Your task to perform on an android device: refresh tabs in the chrome app Image 0: 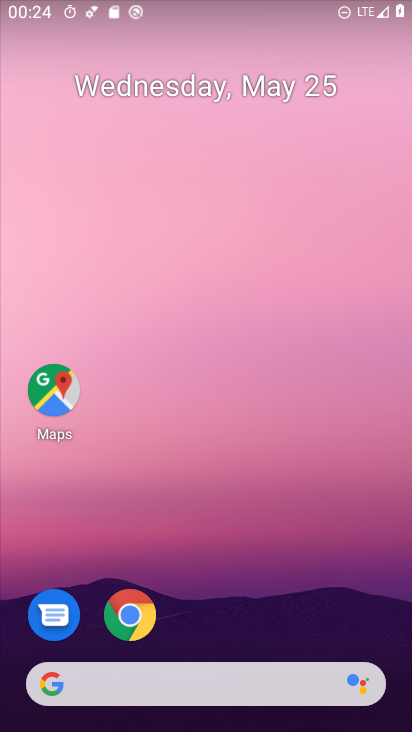
Step 0: press home button
Your task to perform on an android device: refresh tabs in the chrome app Image 1: 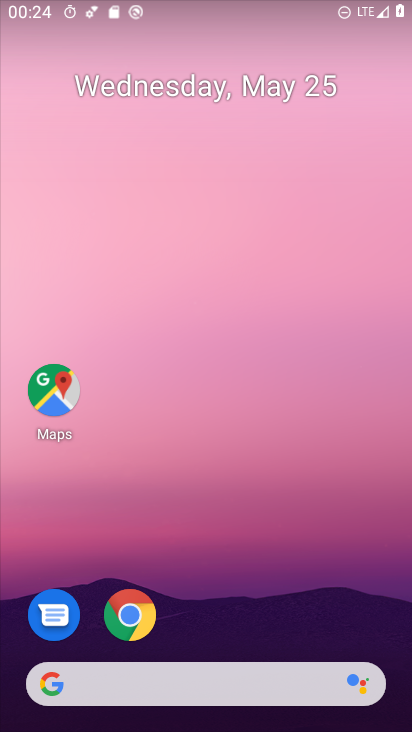
Step 1: drag from (276, 720) to (230, 149)
Your task to perform on an android device: refresh tabs in the chrome app Image 2: 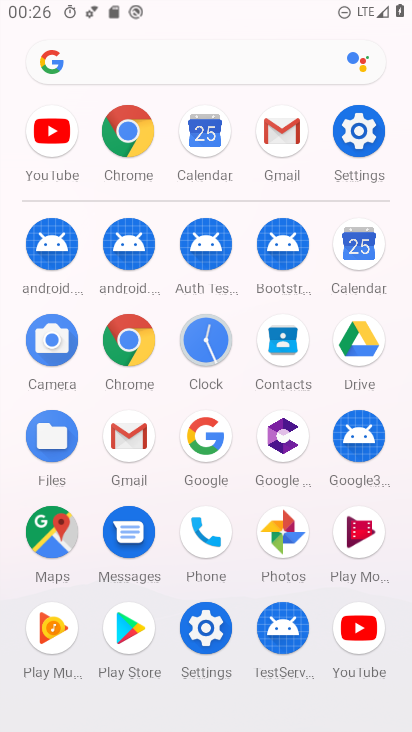
Step 2: click (142, 139)
Your task to perform on an android device: refresh tabs in the chrome app Image 3: 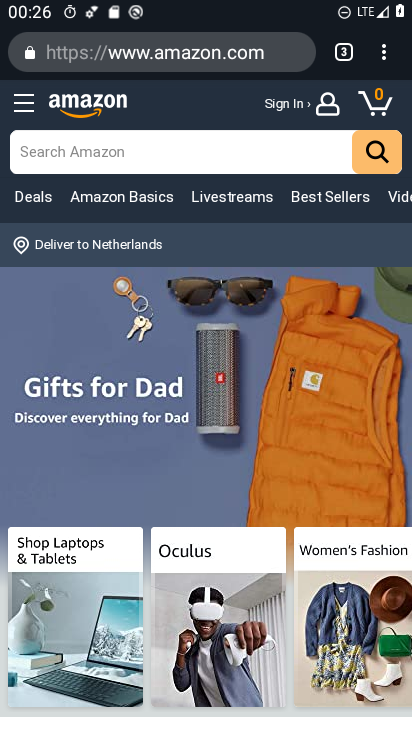
Step 3: click (380, 68)
Your task to perform on an android device: refresh tabs in the chrome app Image 4: 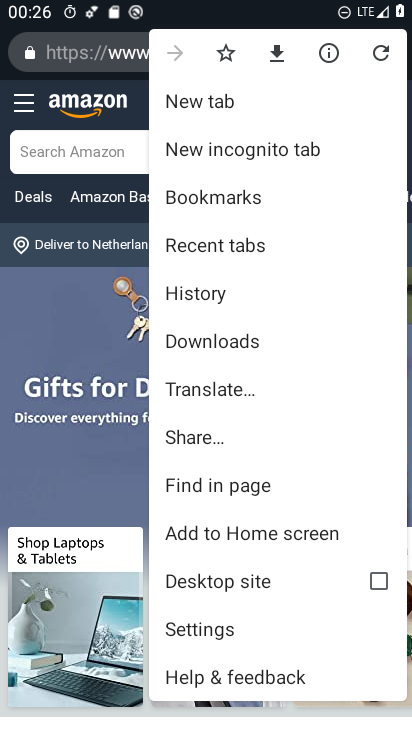
Step 4: click (377, 51)
Your task to perform on an android device: refresh tabs in the chrome app Image 5: 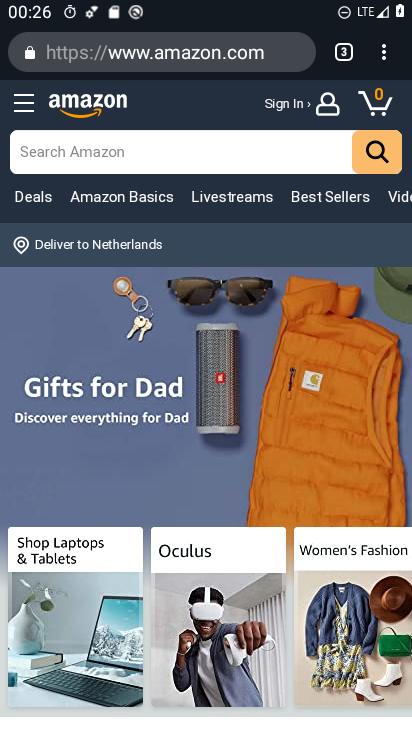
Step 5: task complete